Your task to perform on an android device: change keyboard looks Image 0: 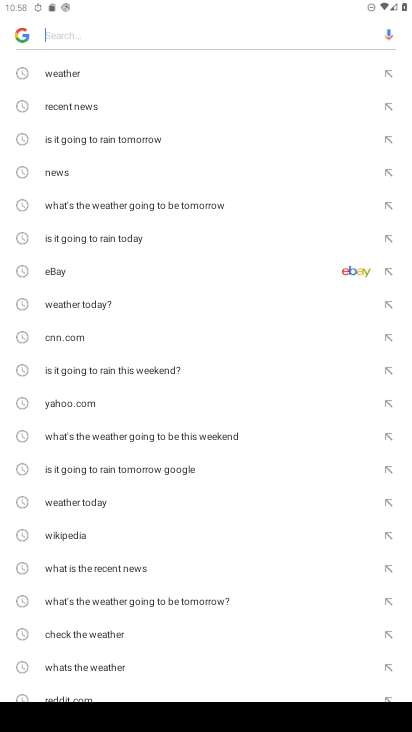
Step 0: press home button
Your task to perform on an android device: change keyboard looks Image 1: 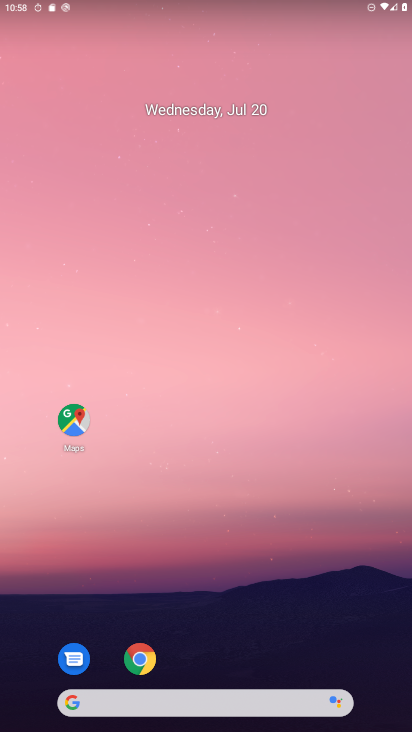
Step 1: drag from (312, 593) to (300, 105)
Your task to perform on an android device: change keyboard looks Image 2: 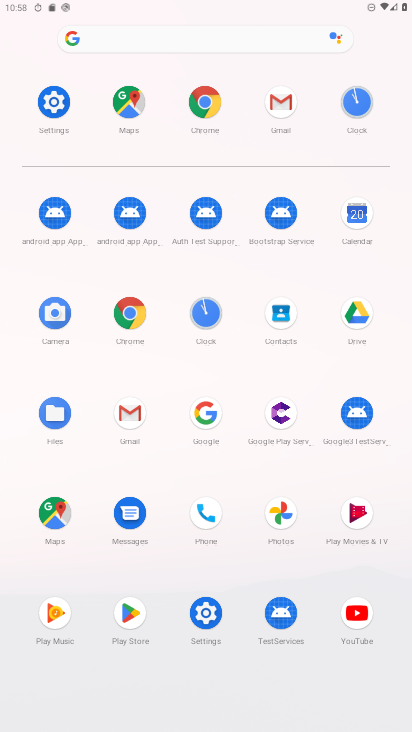
Step 2: click (51, 100)
Your task to perform on an android device: change keyboard looks Image 3: 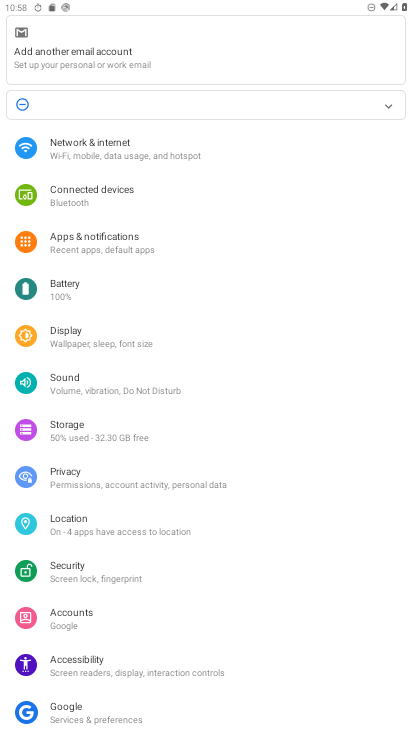
Step 3: drag from (167, 600) to (212, 187)
Your task to perform on an android device: change keyboard looks Image 4: 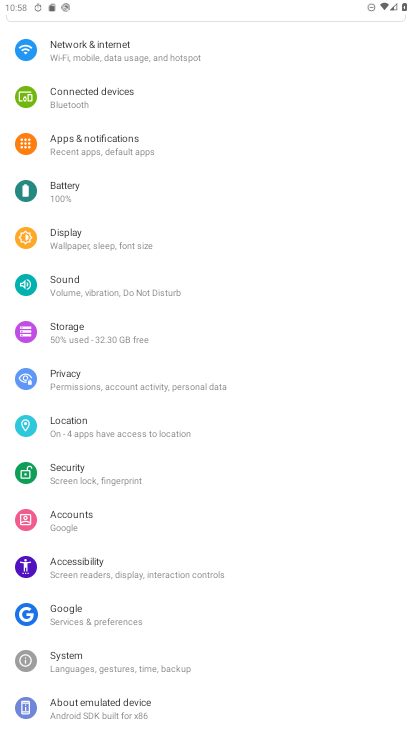
Step 4: click (146, 664)
Your task to perform on an android device: change keyboard looks Image 5: 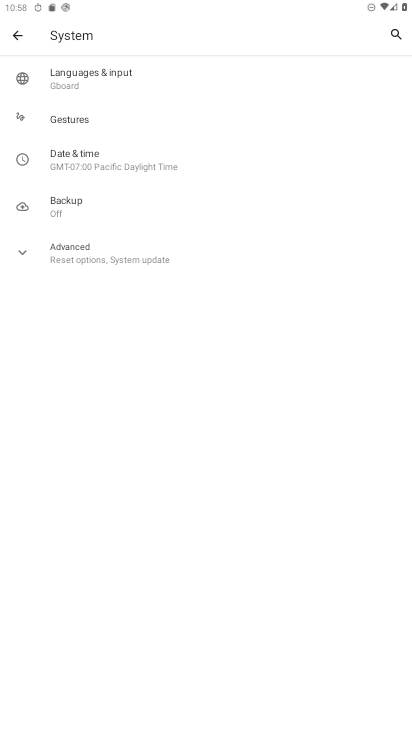
Step 5: click (110, 70)
Your task to perform on an android device: change keyboard looks Image 6: 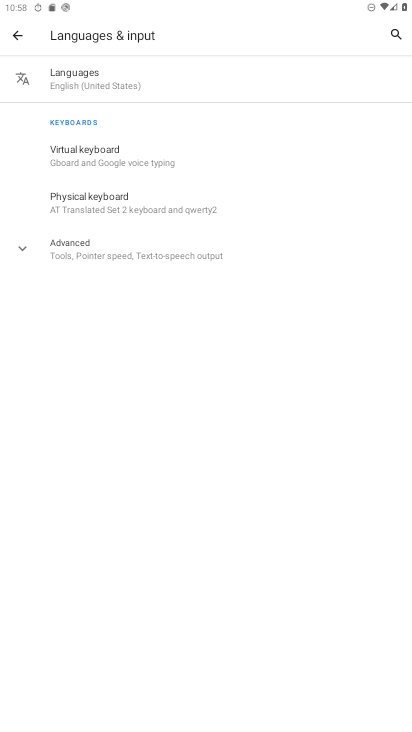
Step 6: click (97, 153)
Your task to perform on an android device: change keyboard looks Image 7: 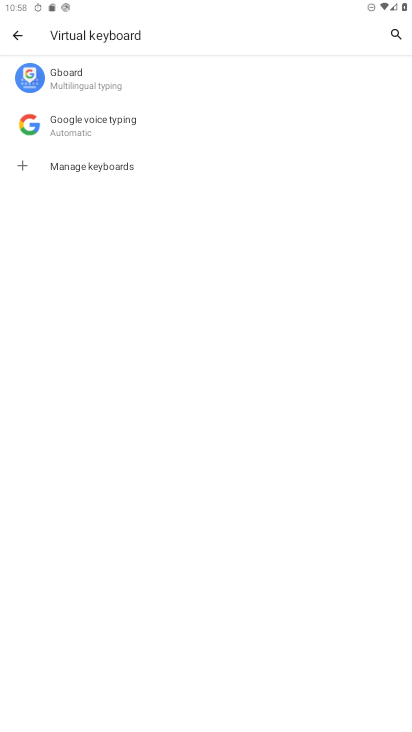
Step 7: click (108, 84)
Your task to perform on an android device: change keyboard looks Image 8: 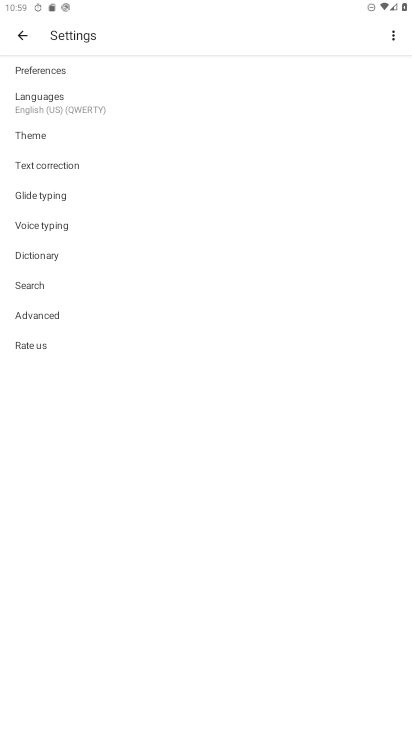
Step 8: click (36, 131)
Your task to perform on an android device: change keyboard looks Image 9: 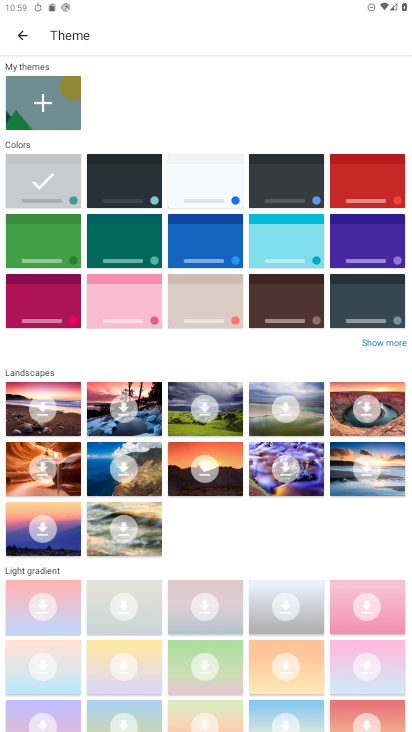
Step 9: click (202, 170)
Your task to perform on an android device: change keyboard looks Image 10: 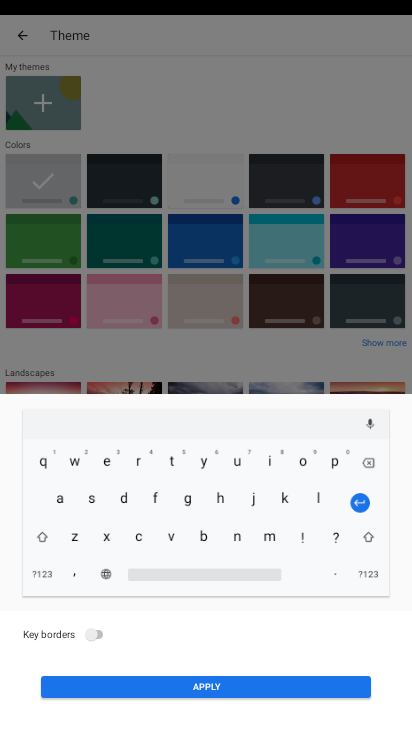
Step 10: click (276, 691)
Your task to perform on an android device: change keyboard looks Image 11: 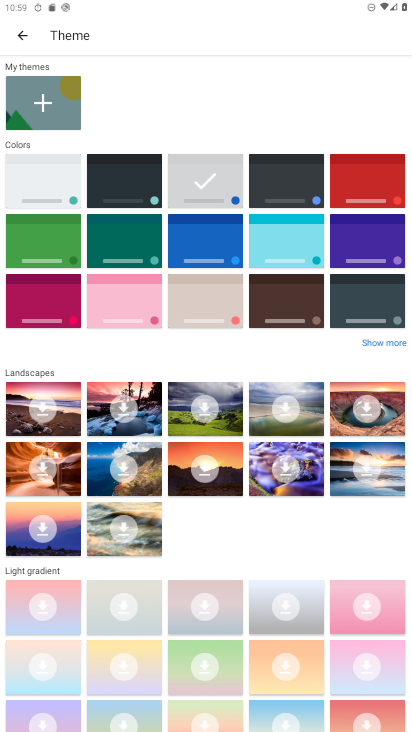
Step 11: task complete